Your task to perform on an android device: clear all cookies in the chrome app Image 0: 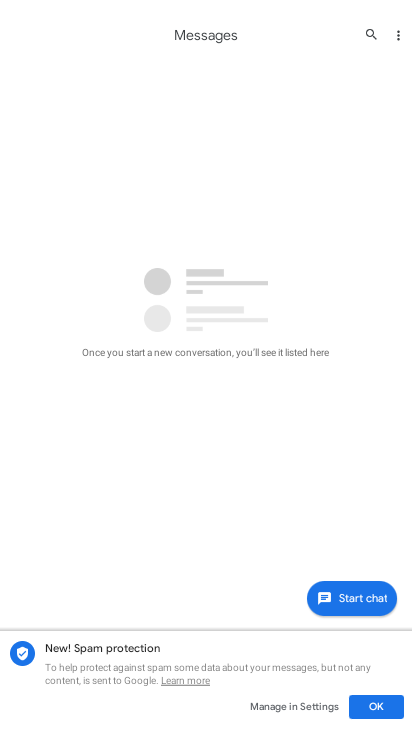
Step 0: press home button
Your task to perform on an android device: clear all cookies in the chrome app Image 1: 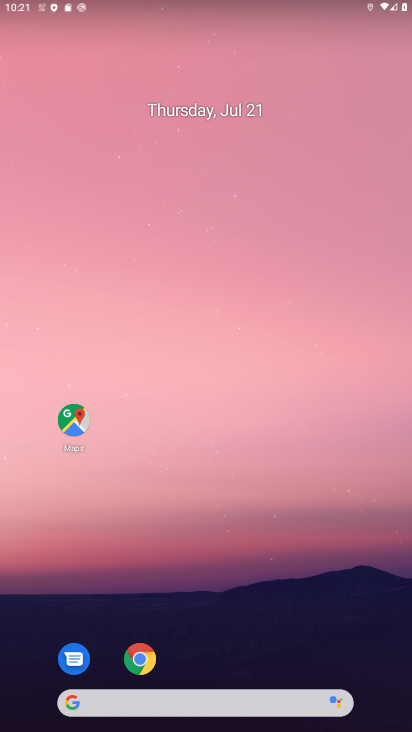
Step 1: drag from (174, 663) to (65, 163)
Your task to perform on an android device: clear all cookies in the chrome app Image 2: 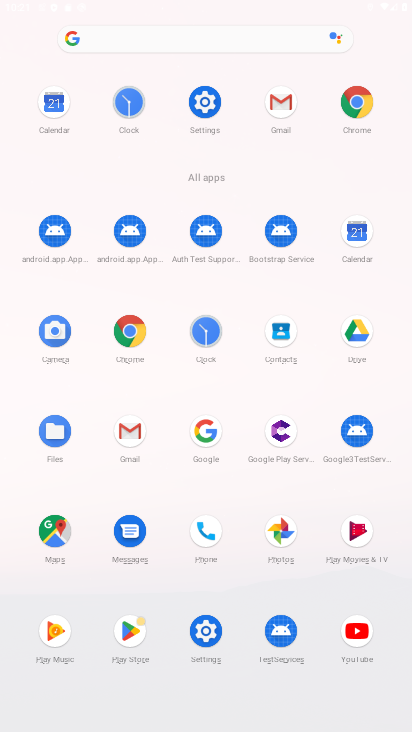
Step 2: click (132, 336)
Your task to perform on an android device: clear all cookies in the chrome app Image 3: 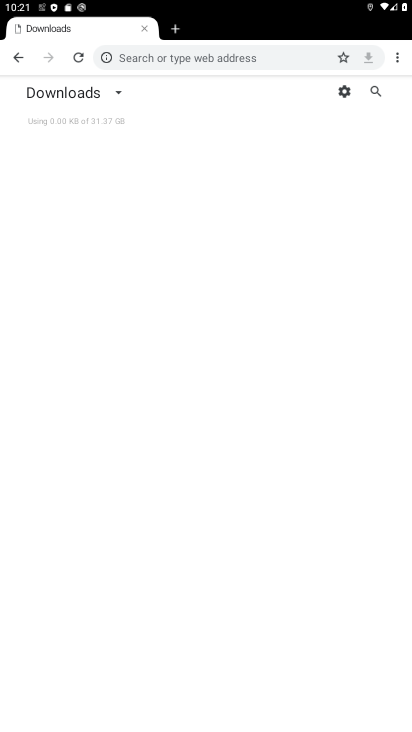
Step 3: click (397, 58)
Your task to perform on an android device: clear all cookies in the chrome app Image 4: 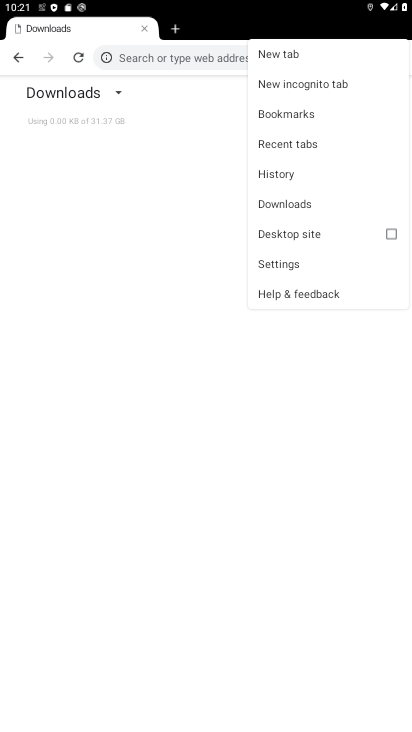
Step 4: click (270, 173)
Your task to perform on an android device: clear all cookies in the chrome app Image 5: 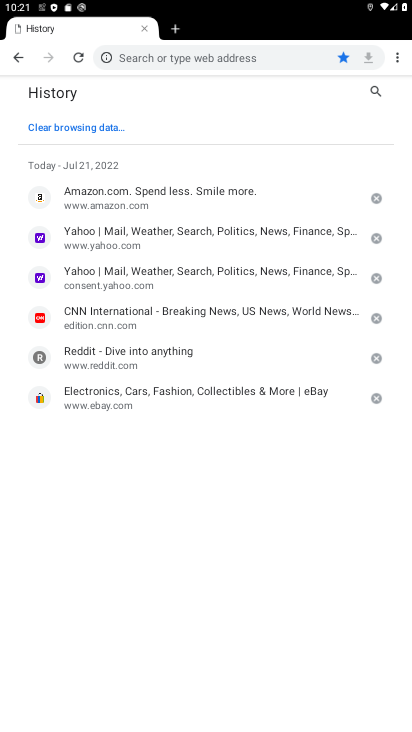
Step 5: click (76, 127)
Your task to perform on an android device: clear all cookies in the chrome app Image 6: 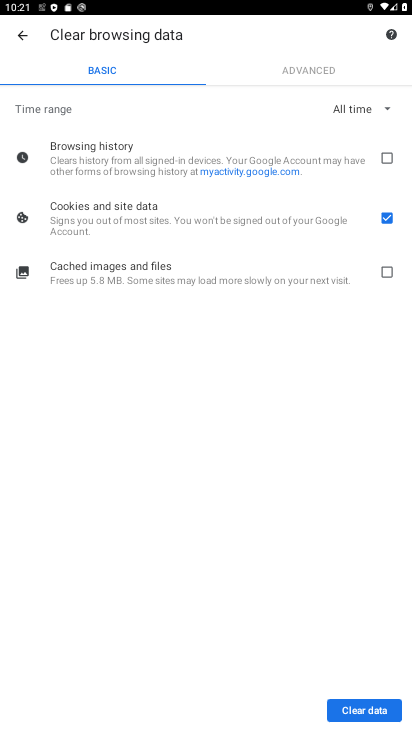
Step 6: click (162, 273)
Your task to perform on an android device: clear all cookies in the chrome app Image 7: 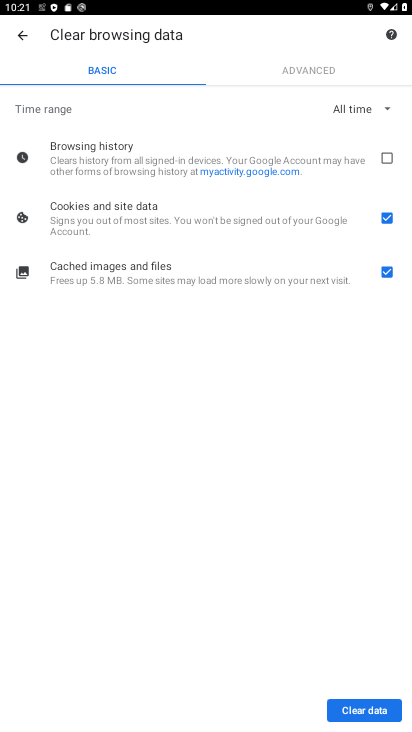
Step 7: click (358, 705)
Your task to perform on an android device: clear all cookies in the chrome app Image 8: 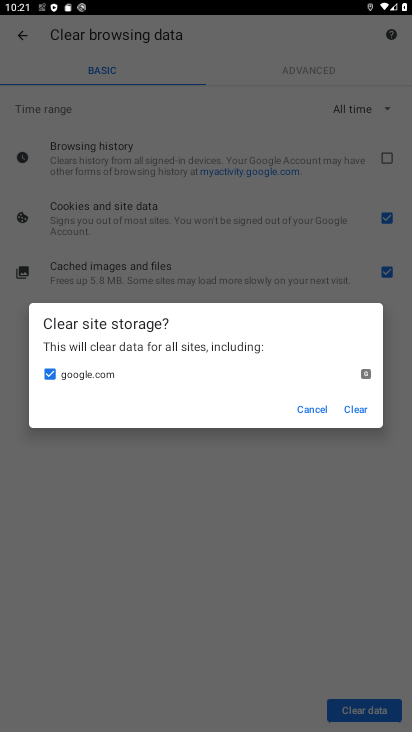
Step 8: click (354, 411)
Your task to perform on an android device: clear all cookies in the chrome app Image 9: 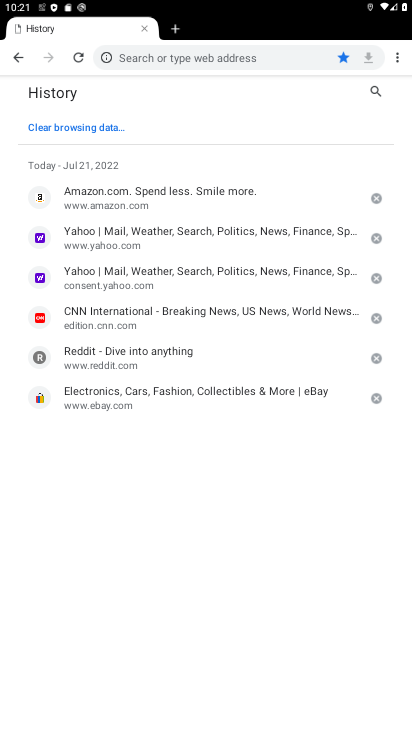
Step 9: task complete